Your task to perform on an android device: read, delete, or share a saved page in the chrome app Image 0: 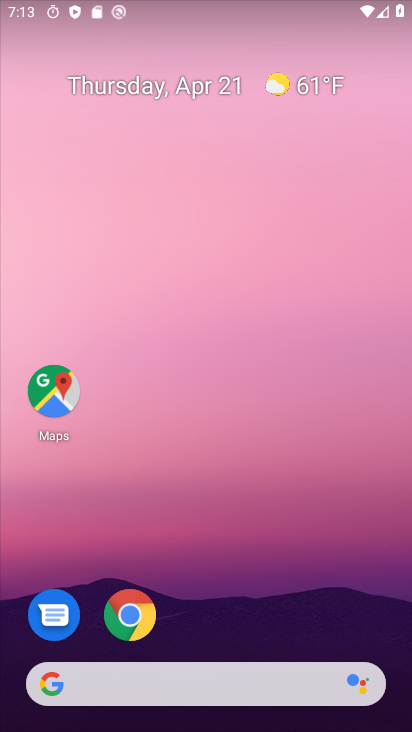
Step 0: click (226, 121)
Your task to perform on an android device: read, delete, or share a saved page in the chrome app Image 1: 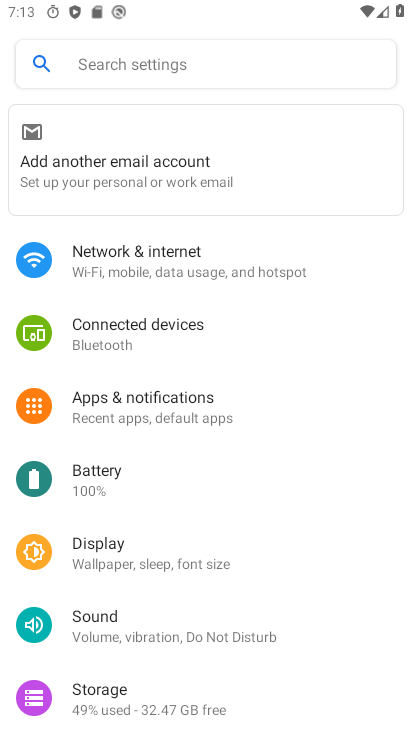
Step 1: press home button
Your task to perform on an android device: read, delete, or share a saved page in the chrome app Image 2: 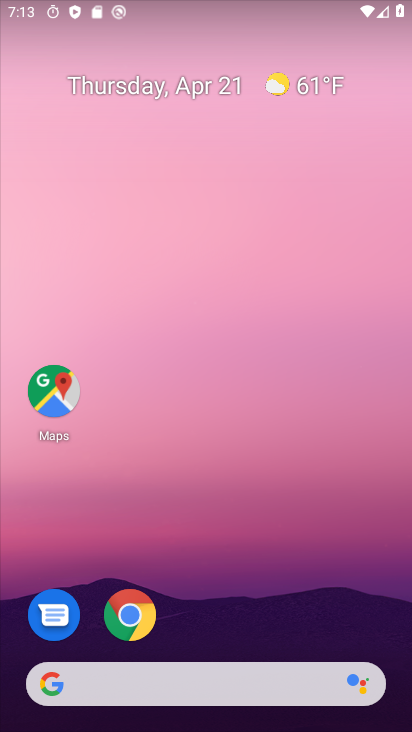
Step 2: drag from (172, 630) to (210, 133)
Your task to perform on an android device: read, delete, or share a saved page in the chrome app Image 3: 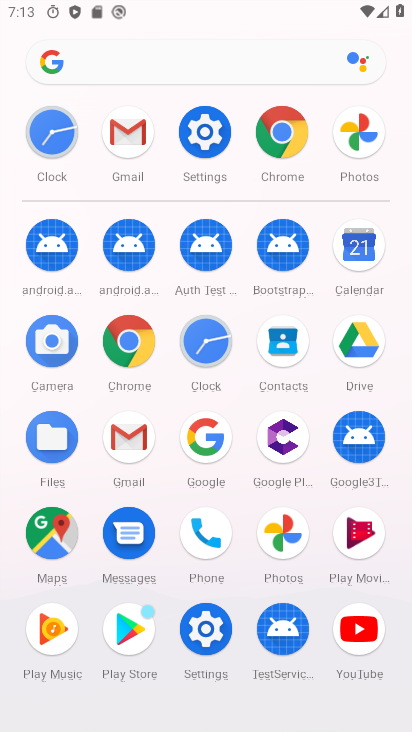
Step 3: click (133, 339)
Your task to perform on an android device: read, delete, or share a saved page in the chrome app Image 4: 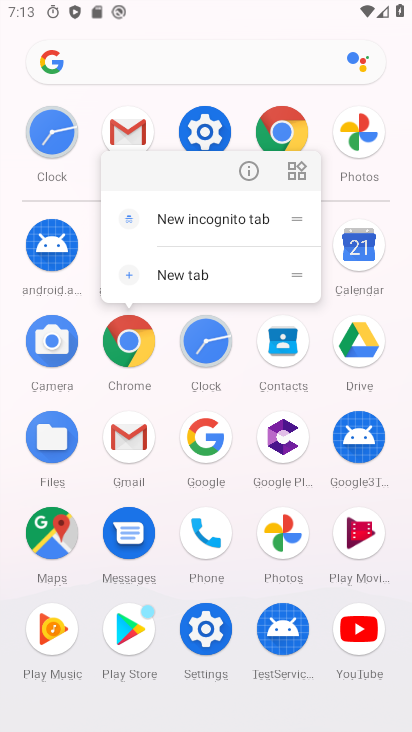
Step 4: click (249, 173)
Your task to perform on an android device: read, delete, or share a saved page in the chrome app Image 5: 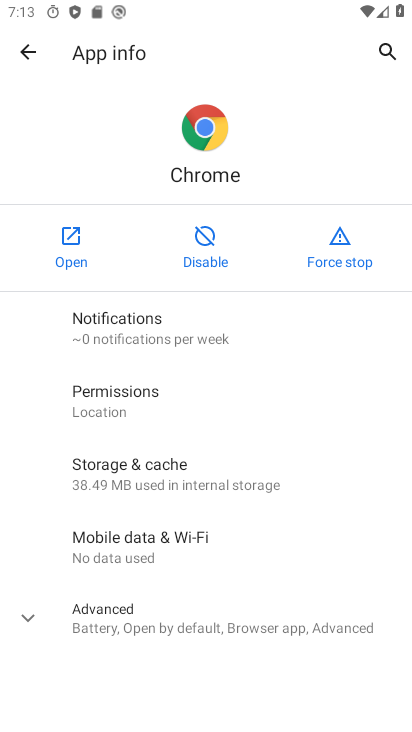
Step 5: click (77, 264)
Your task to perform on an android device: read, delete, or share a saved page in the chrome app Image 6: 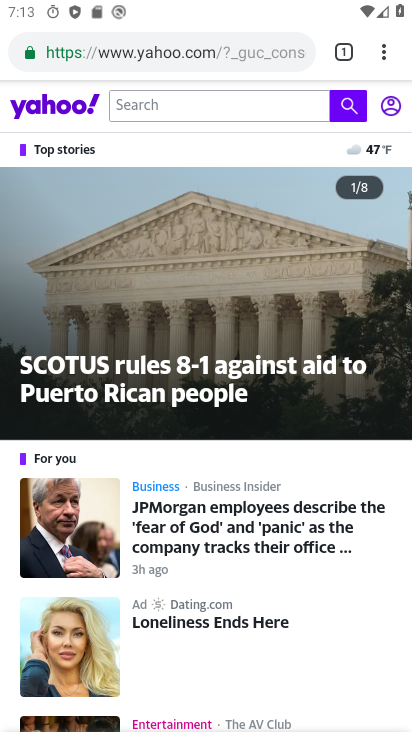
Step 6: drag from (388, 48) to (266, 264)
Your task to perform on an android device: read, delete, or share a saved page in the chrome app Image 7: 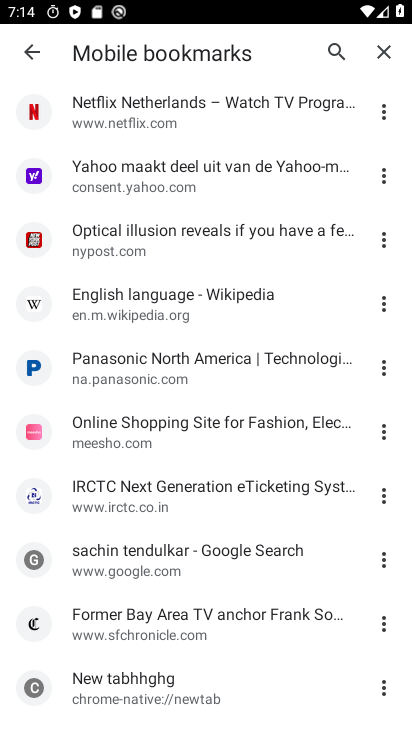
Step 7: drag from (123, 236) to (168, 492)
Your task to perform on an android device: read, delete, or share a saved page in the chrome app Image 8: 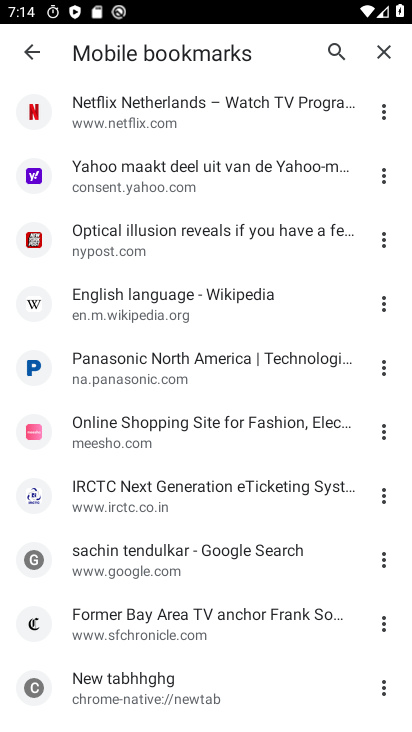
Step 8: drag from (198, 500) to (298, 272)
Your task to perform on an android device: read, delete, or share a saved page in the chrome app Image 9: 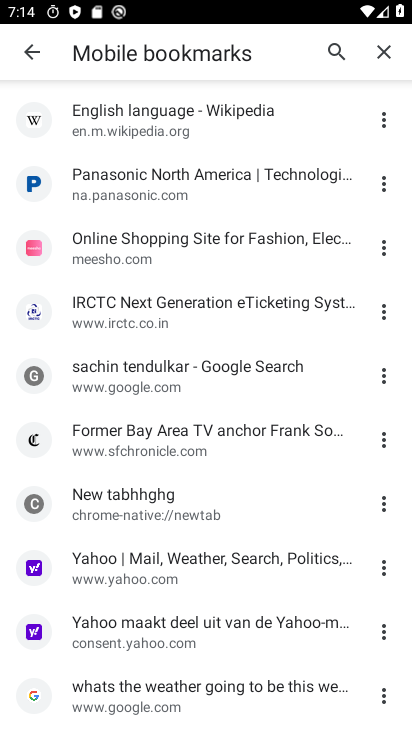
Step 9: drag from (195, 578) to (225, 424)
Your task to perform on an android device: read, delete, or share a saved page in the chrome app Image 10: 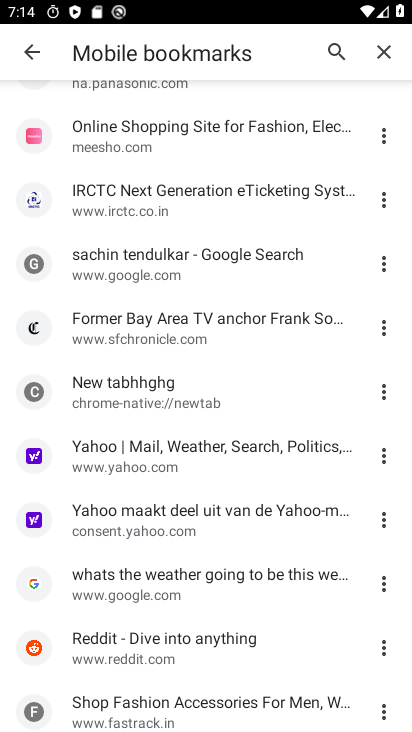
Step 10: drag from (177, 275) to (227, 635)
Your task to perform on an android device: read, delete, or share a saved page in the chrome app Image 11: 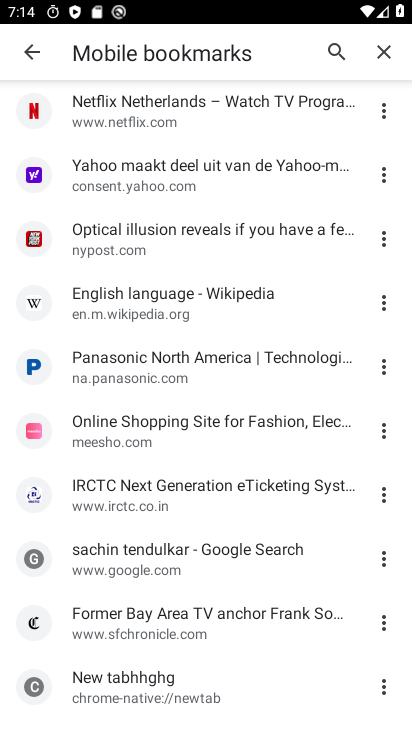
Step 11: click (384, 422)
Your task to perform on an android device: read, delete, or share a saved page in the chrome app Image 12: 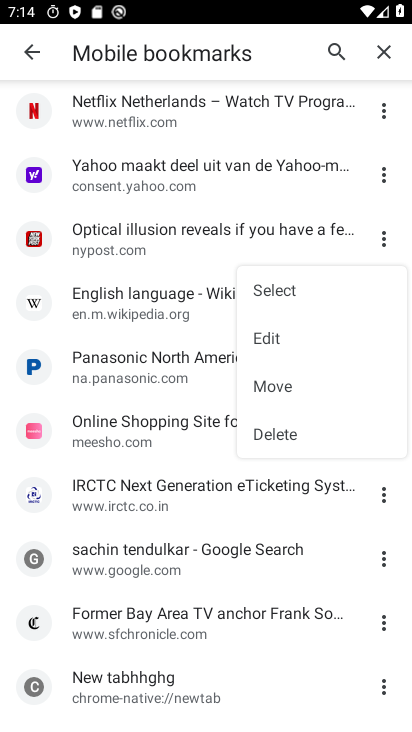
Step 12: click (291, 424)
Your task to perform on an android device: read, delete, or share a saved page in the chrome app Image 13: 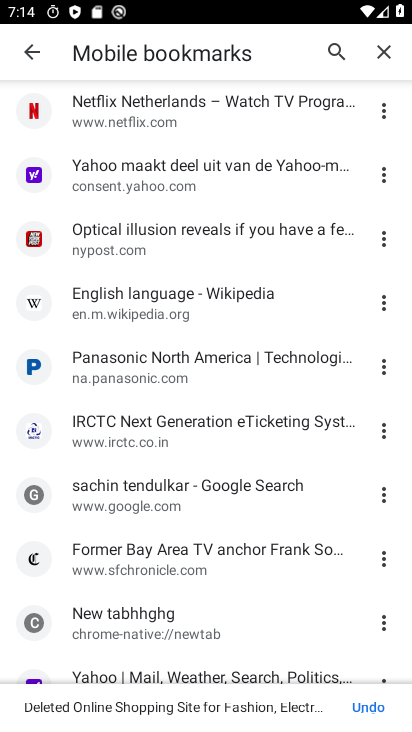
Step 13: click (190, 417)
Your task to perform on an android device: read, delete, or share a saved page in the chrome app Image 14: 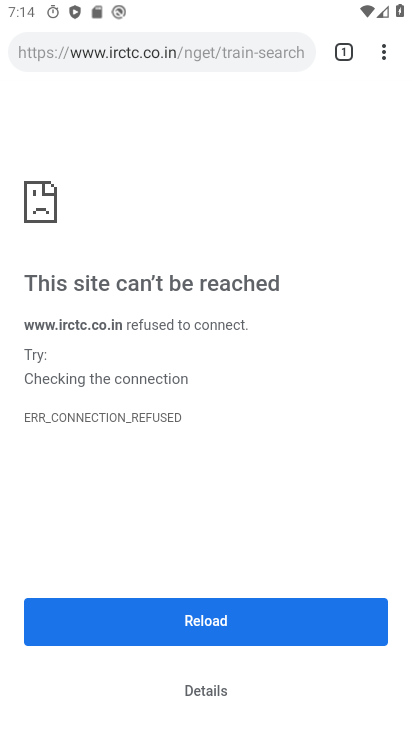
Step 14: press home button
Your task to perform on an android device: read, delete, or share a saved page in the chrome app Image 15: 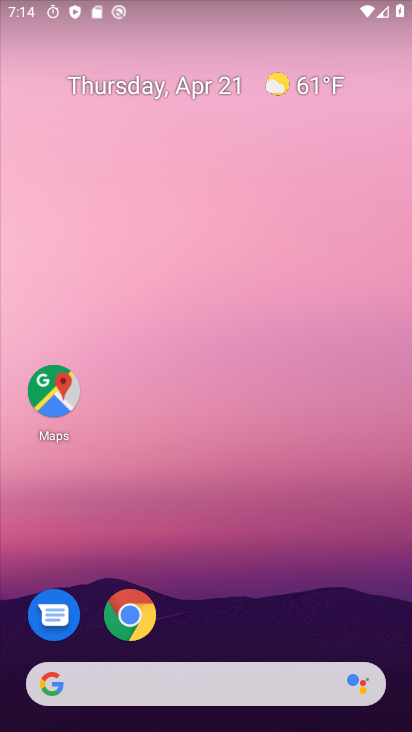
Step 15: drag from (230, 634) to (296, 122)
Your task to perform on an android device: read, delete, or share a saved page in the chrome app Image 16: 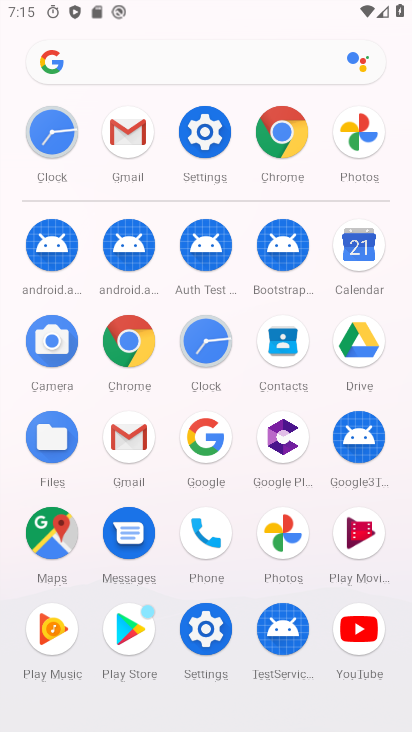
Step 16: click (264, 132)
Your task to perform on an android device: read, delete, or share a saved page in the chrome app Image 17: 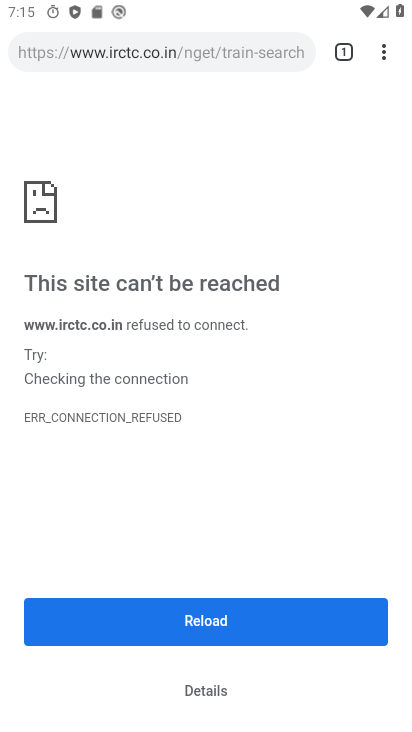
Step 17: click (381, 65)
Your task to perform on an android device: read, delete, or share a saved page in the chrome app Image 18: 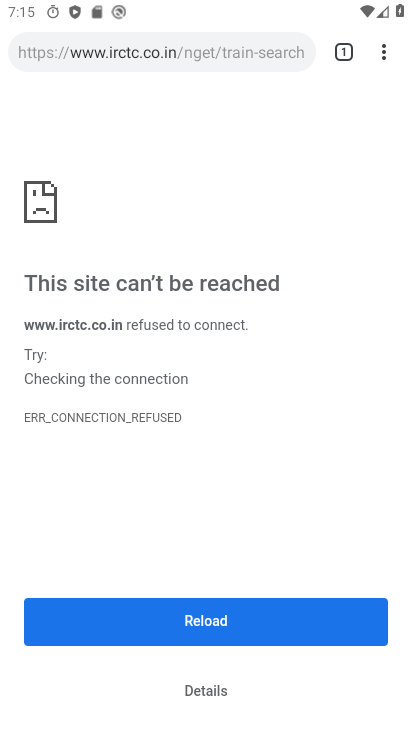
Step 18: task complete